Your task to perform on an android device: open a new tab in the chrome app Image 0: 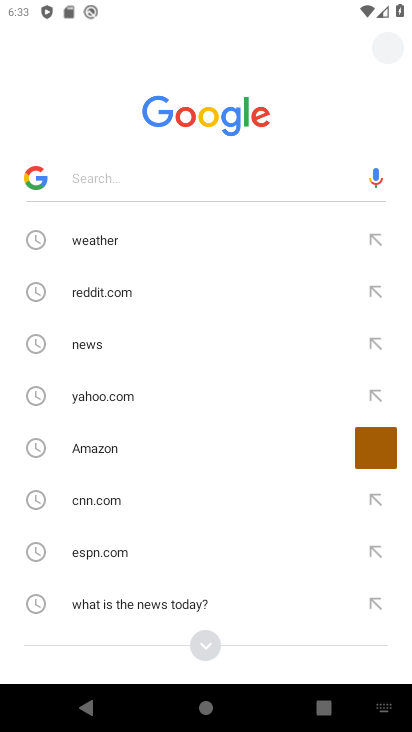
Step 0: press home button
Your task to perform on an android device: open a new tab in the chrome app Image 1: 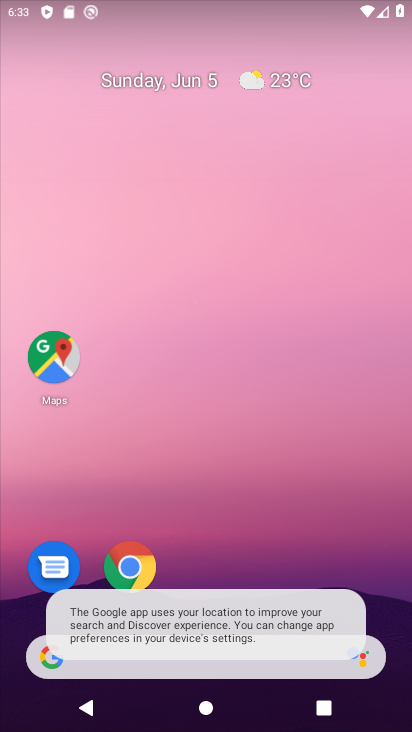
Step 1: drag from (392, 623) to (233, 38)
Your task to perform on an android device: open a new tab in the chrome app Image 2: 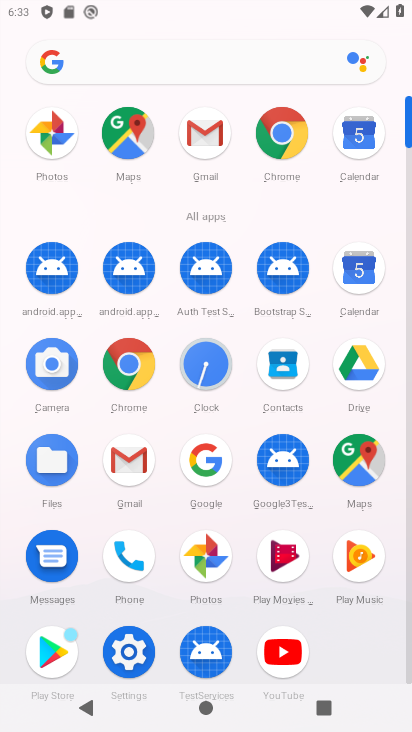
Step 2: click (295, 148)
Your task to perform on an android device: open a new tab in the chrome app Image 3: 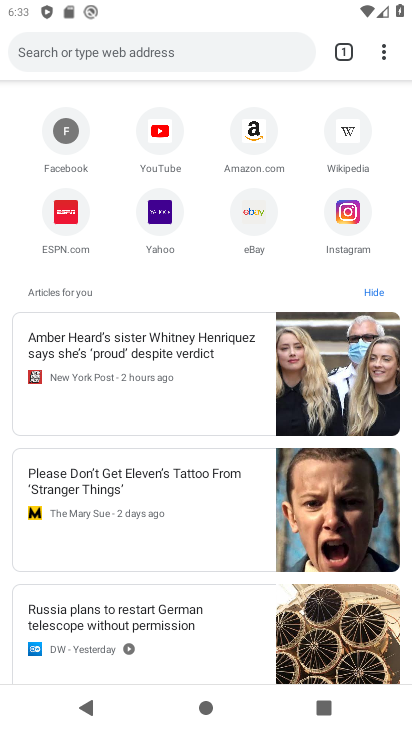
Step 3: click (380, 49)
Your task to perform on an android device: open a new tab in the chrome app Image 4: 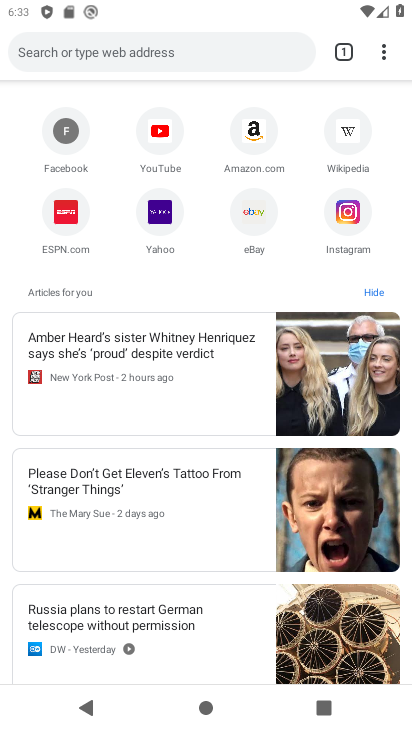
Step 4: click (383, 49)
Your task to perform on an android device: open a new tab in the chrome app Image 5: 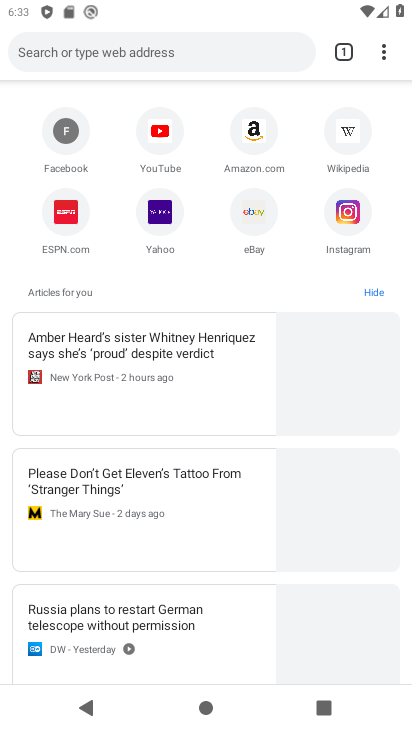
Step 5: click (384, 39)
Your task to perform on an android device: open a new tab in the chrome app Image 6: 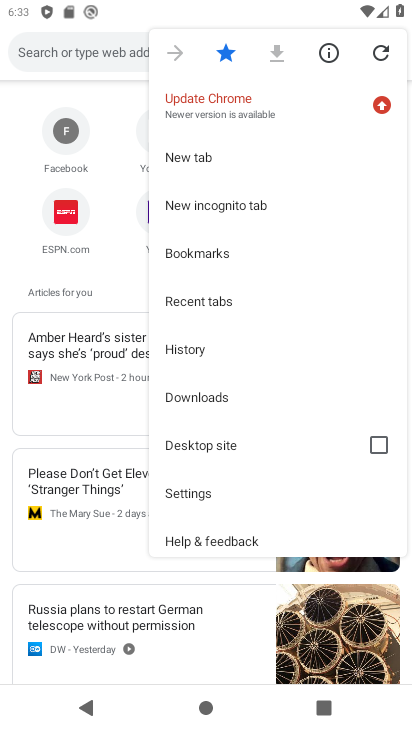
Step 6: click (186, 162)
Your task to perform on an android device: open a new tab in the chrome app Image 7: 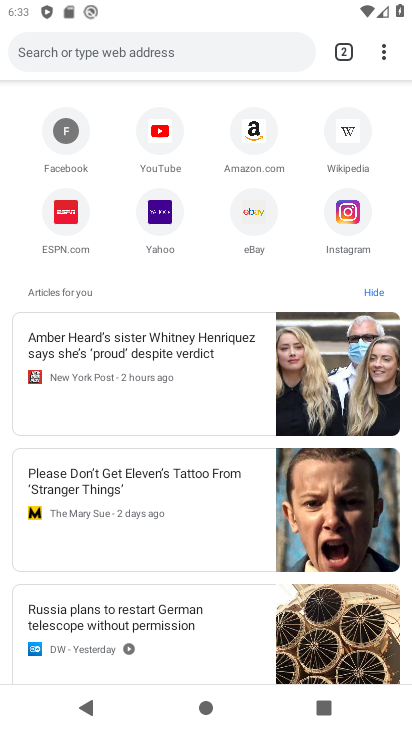
Step 7: task complete